Your task to perform on an android device: open a new tab in the chrome app Image 0: 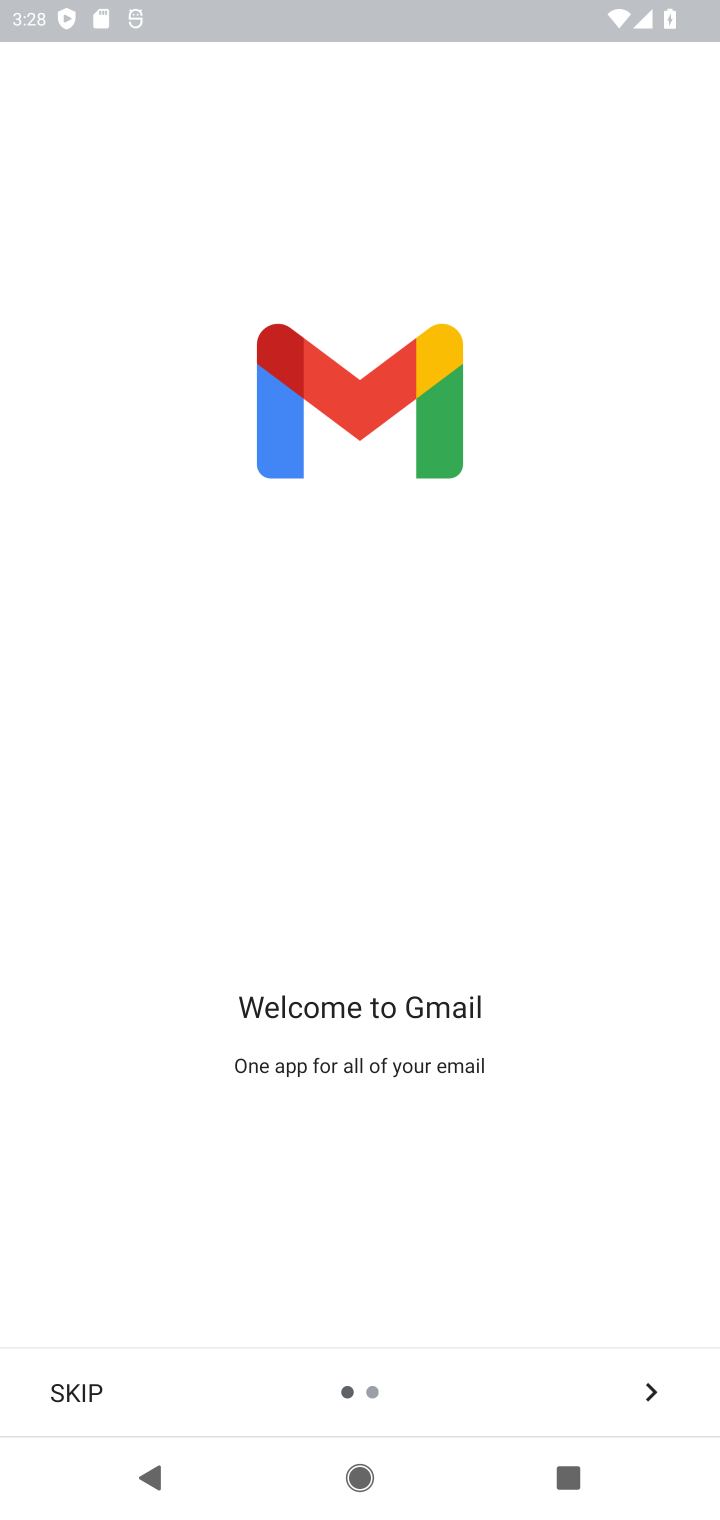
Step 0: press home button
Your task to perform on an android device: open a new tab in the chrome app Image 1: 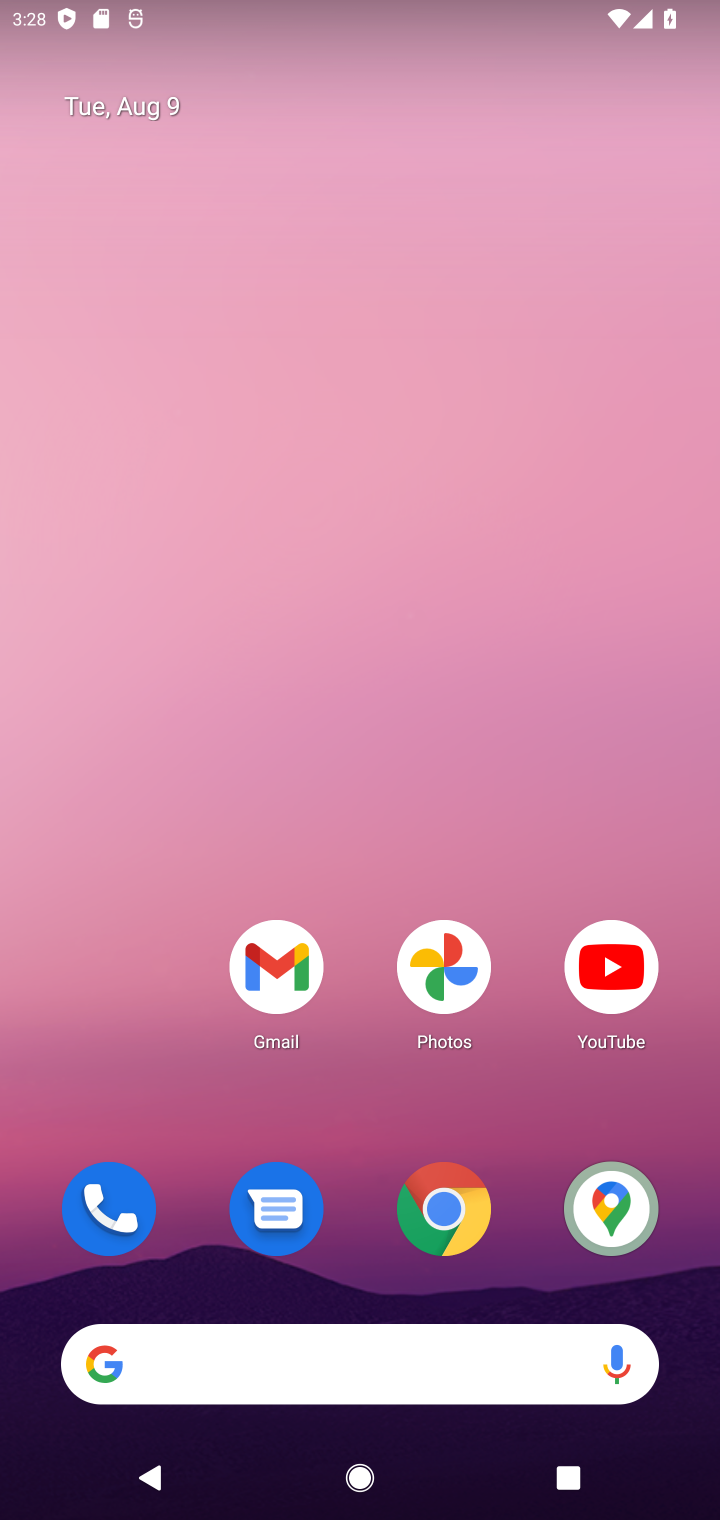
Step 1: click (461, 1208)
Your task to perform on an android device: open a new tab in the chrome app Image 2: 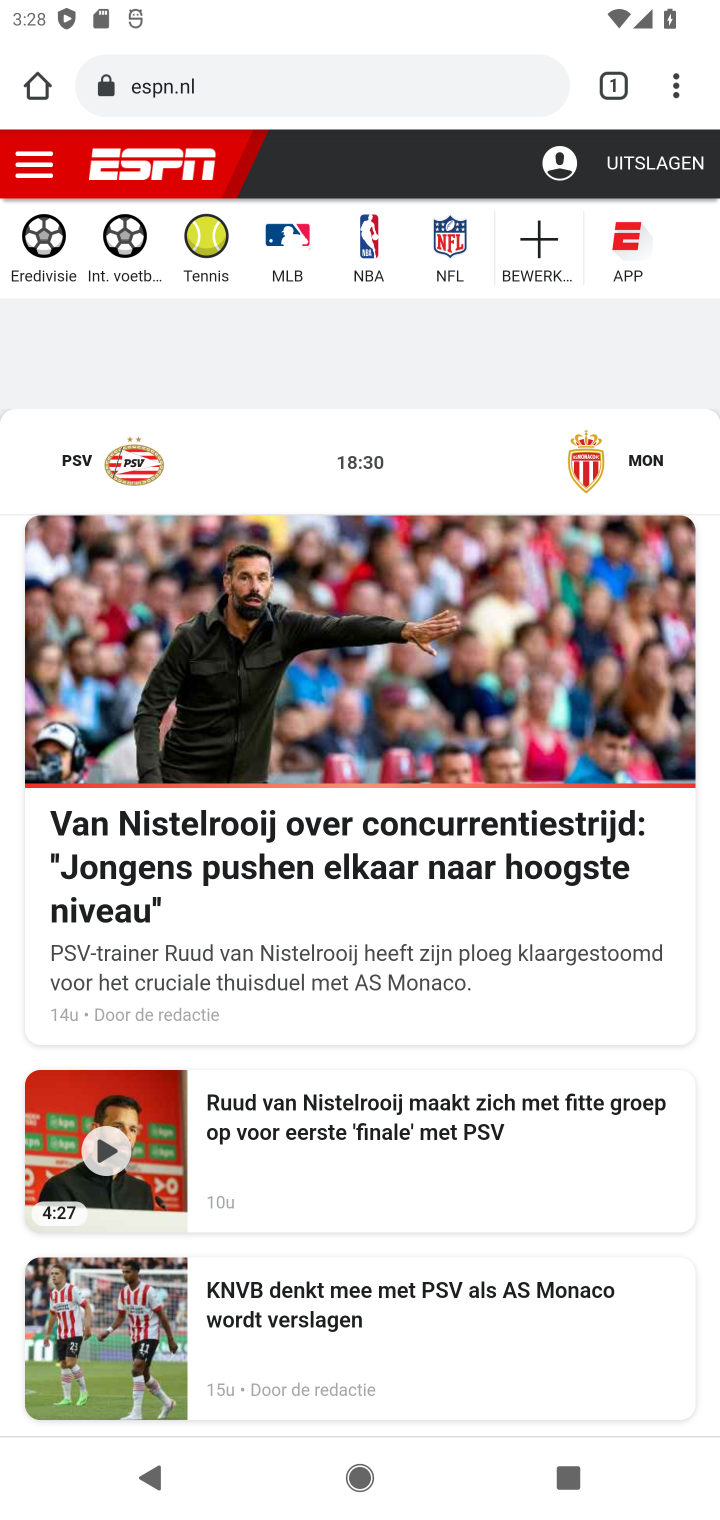
Step 2: task complete